Your task to perform on an android device: turn notification dots off Image 0: 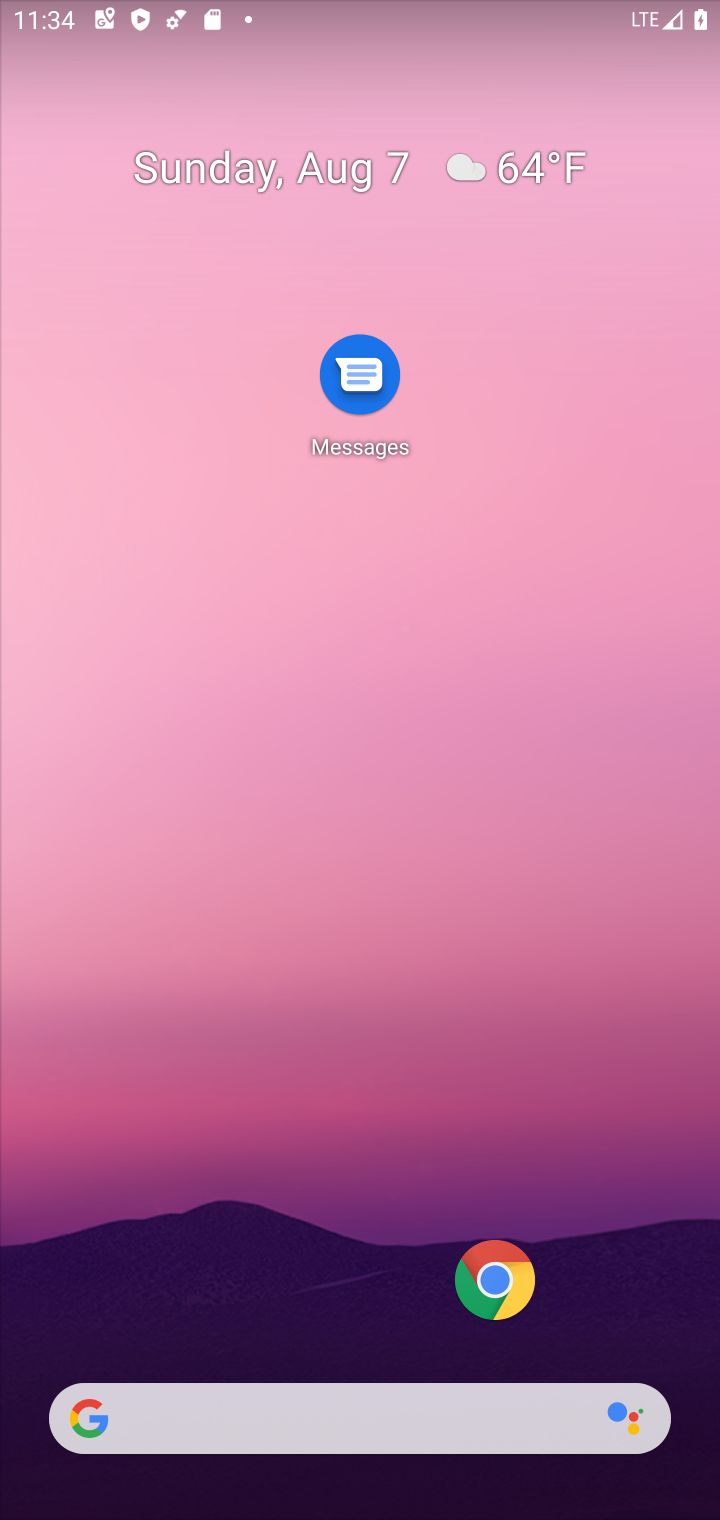
Step 0: drag from (246, 1284) to (413, 167)
Your task to perform on an android device: turn notification dots off Image 1: 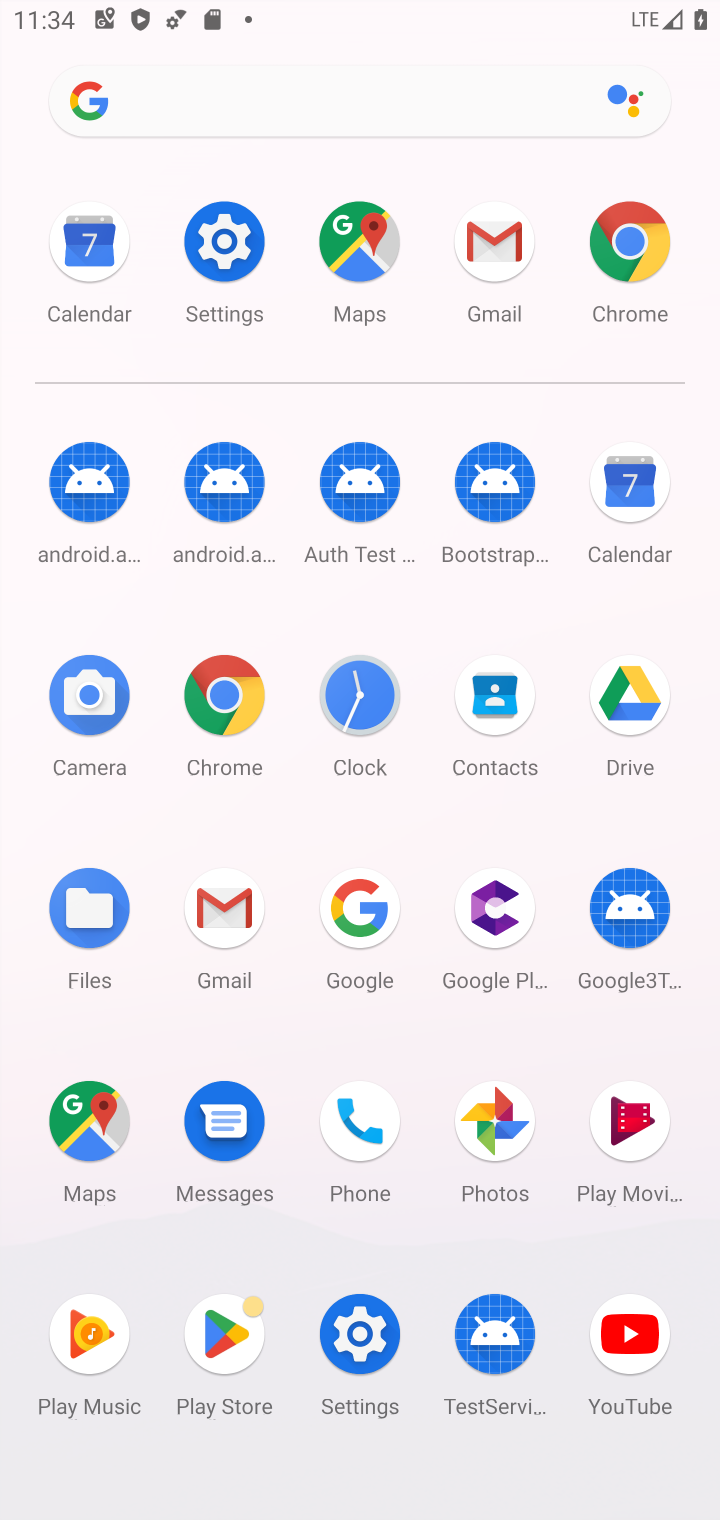
Step 1: click (235, 246)
Your task to perform on an android device: turn notification dots off Image 2: 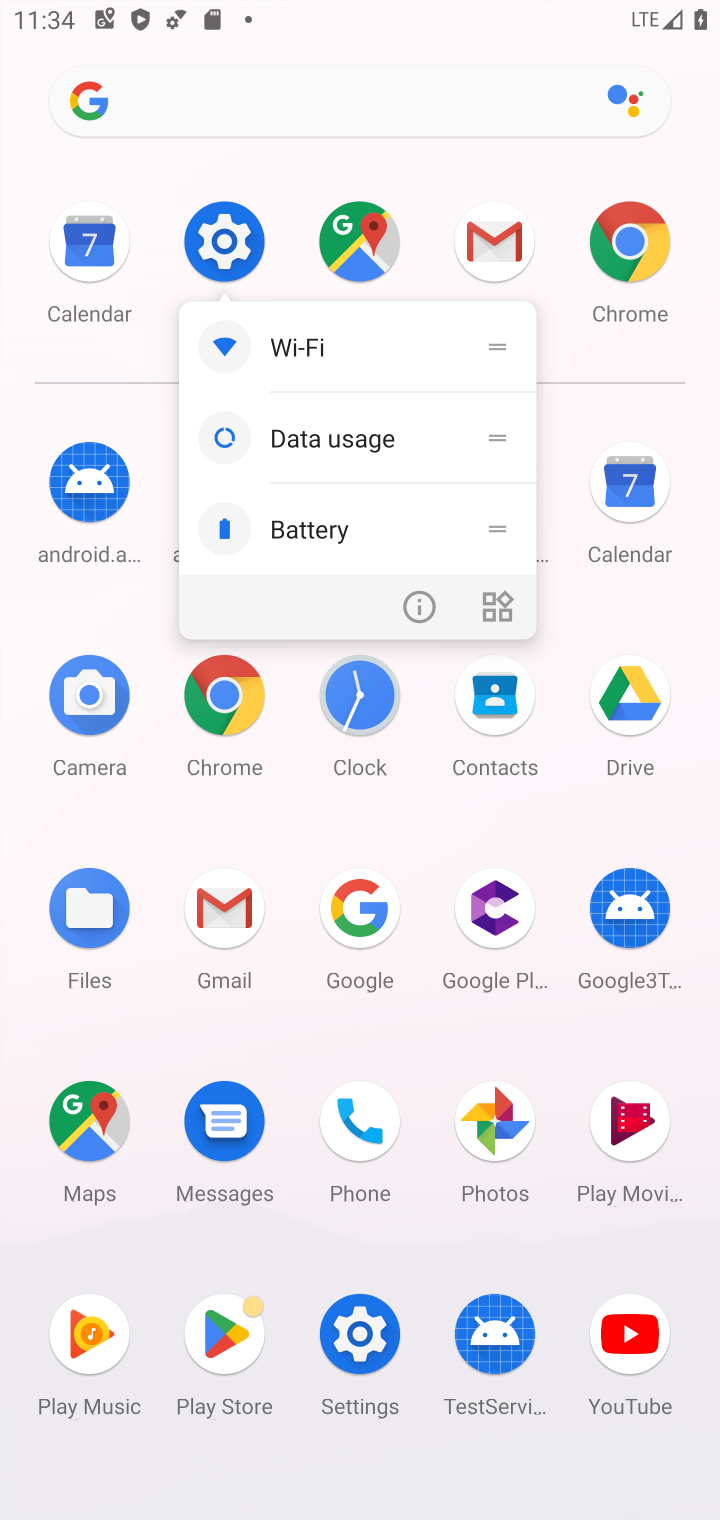
Step 2: click (226, 246)
Your task to perform on an android device: turn notification dots off Image 3: 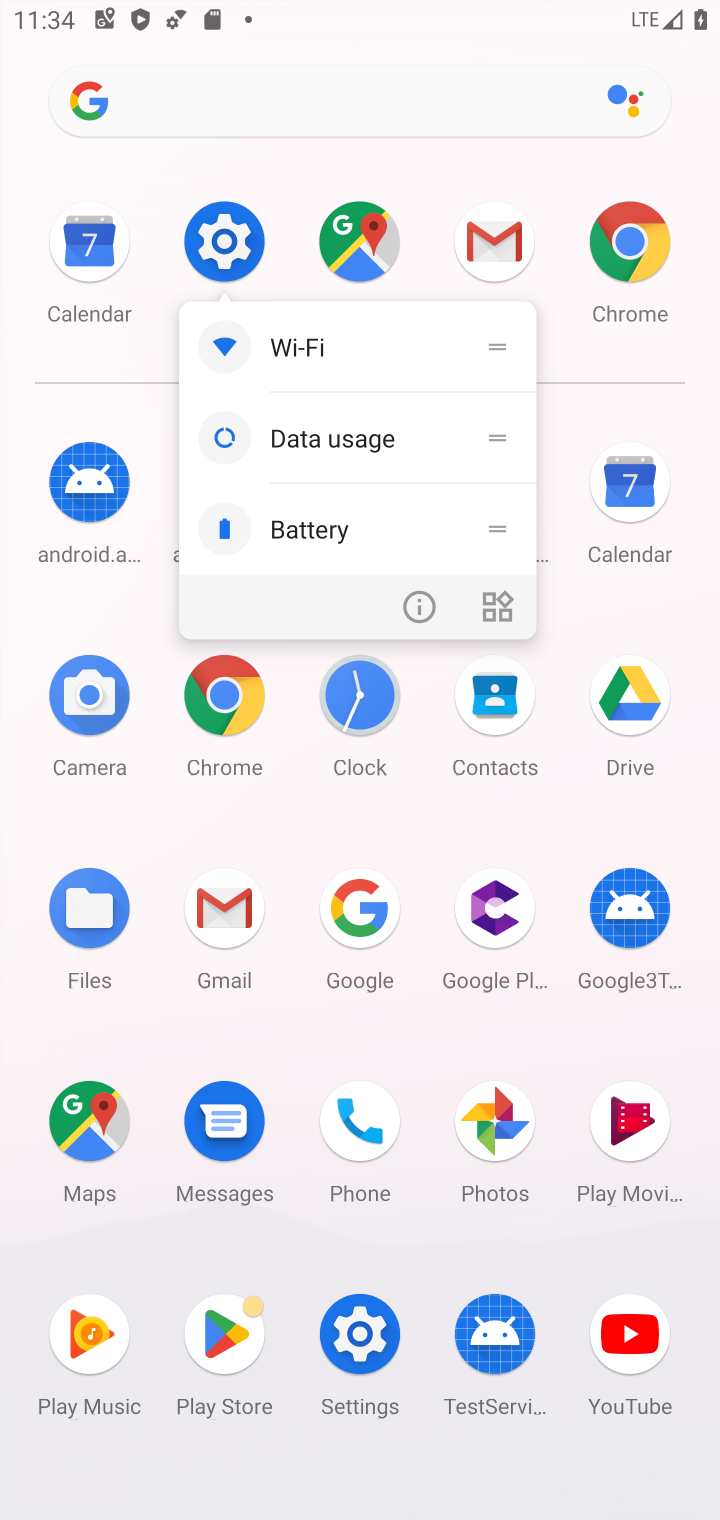
Step 3: click (224, 242)
Your task to perform on an android device: turn notification dots off Image 4: 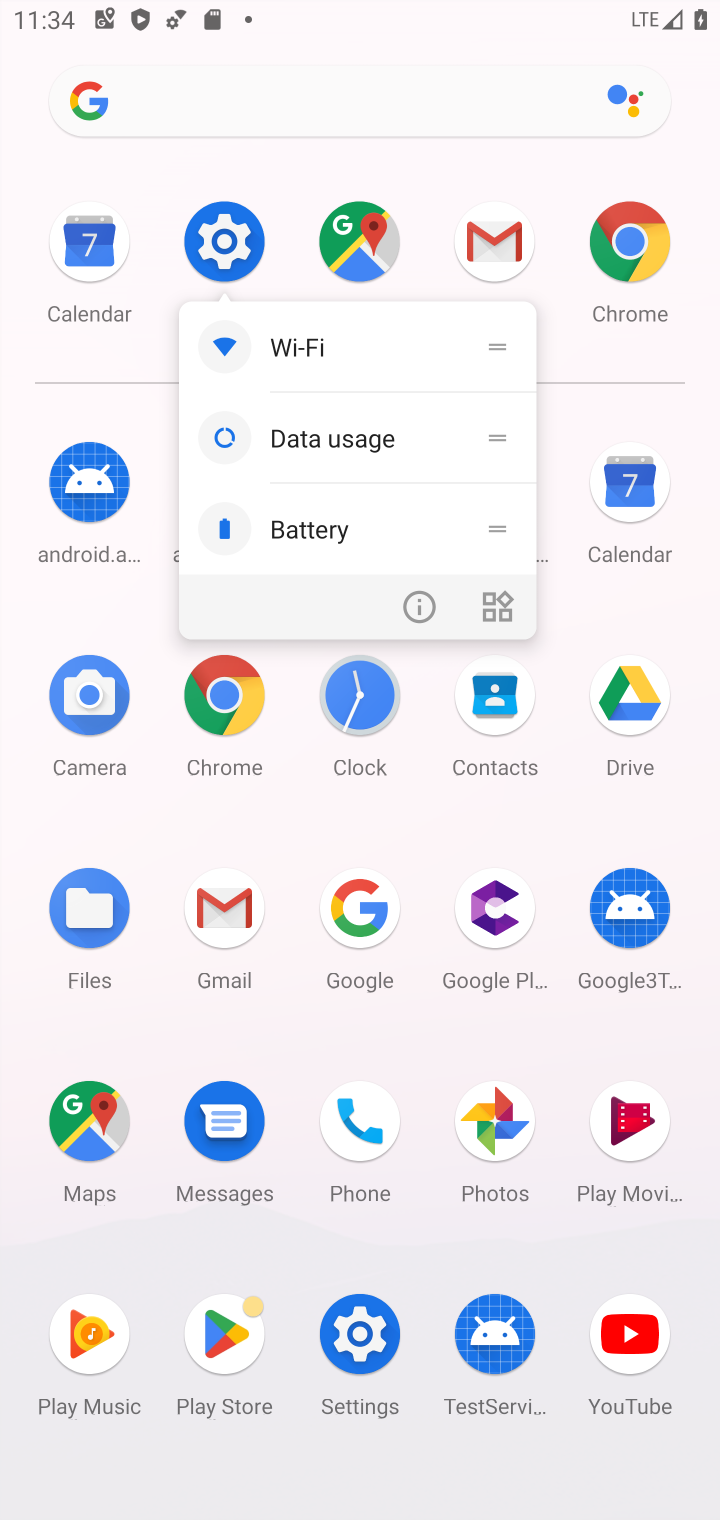
Step 4: click (226, 240)
Your task to perform on an android device: turn notification dots off Image 5: 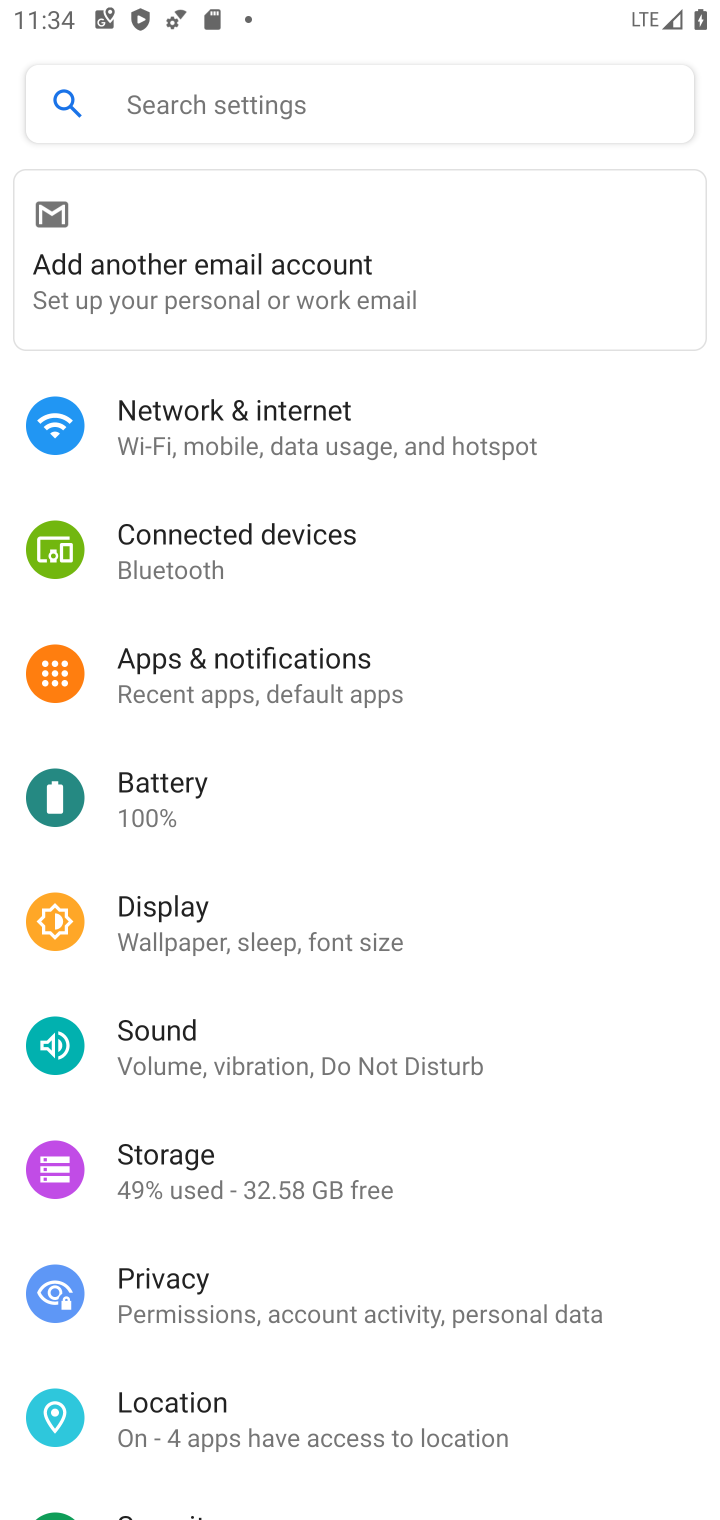
Step 5: click (342, 676)
Your task to perform on an android device: turn notification dots off Image 6: 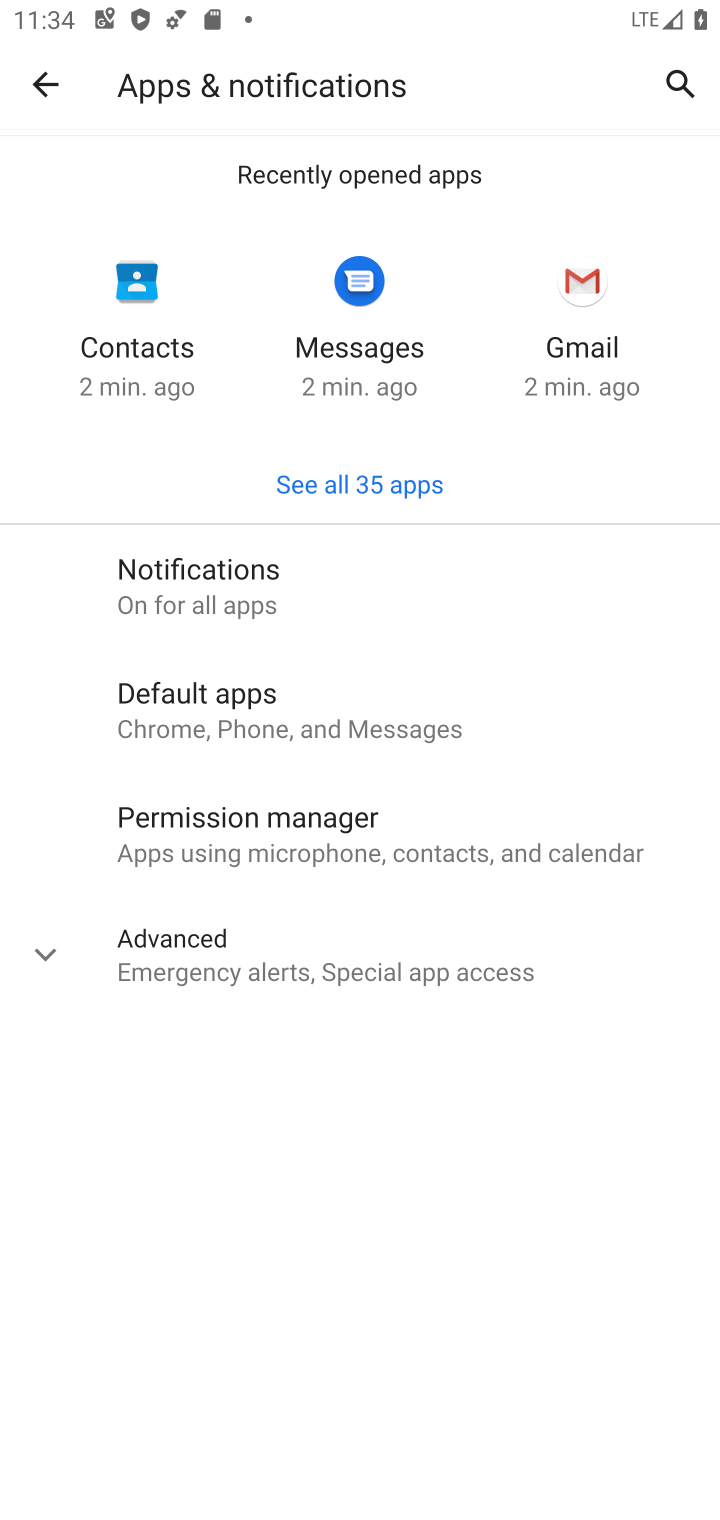
Step 6: click (276, 591)
Your task to perform on an android device: turn notification dots off Image 7: 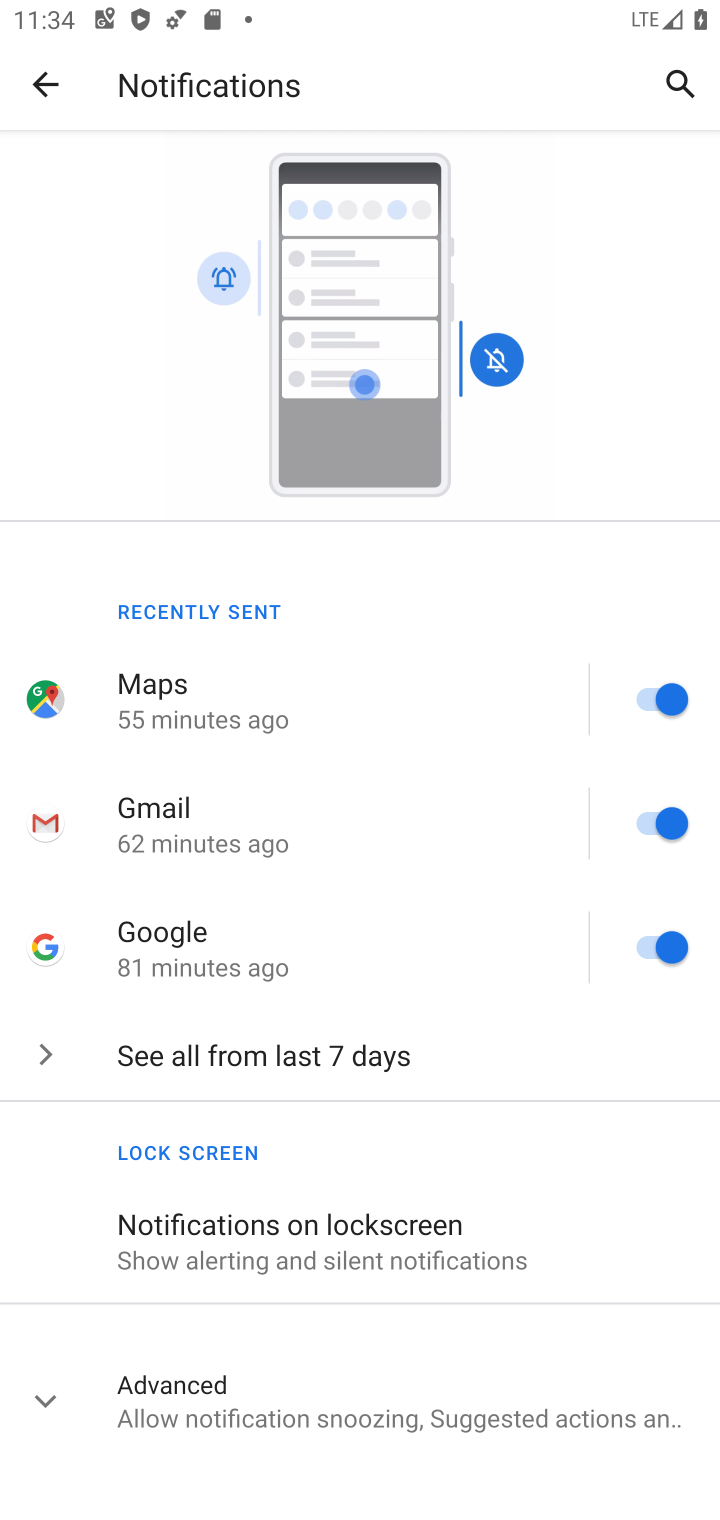
Step 7: click (278, 1378)
Your task to perform on an android device: turn notification dots off Image 8: 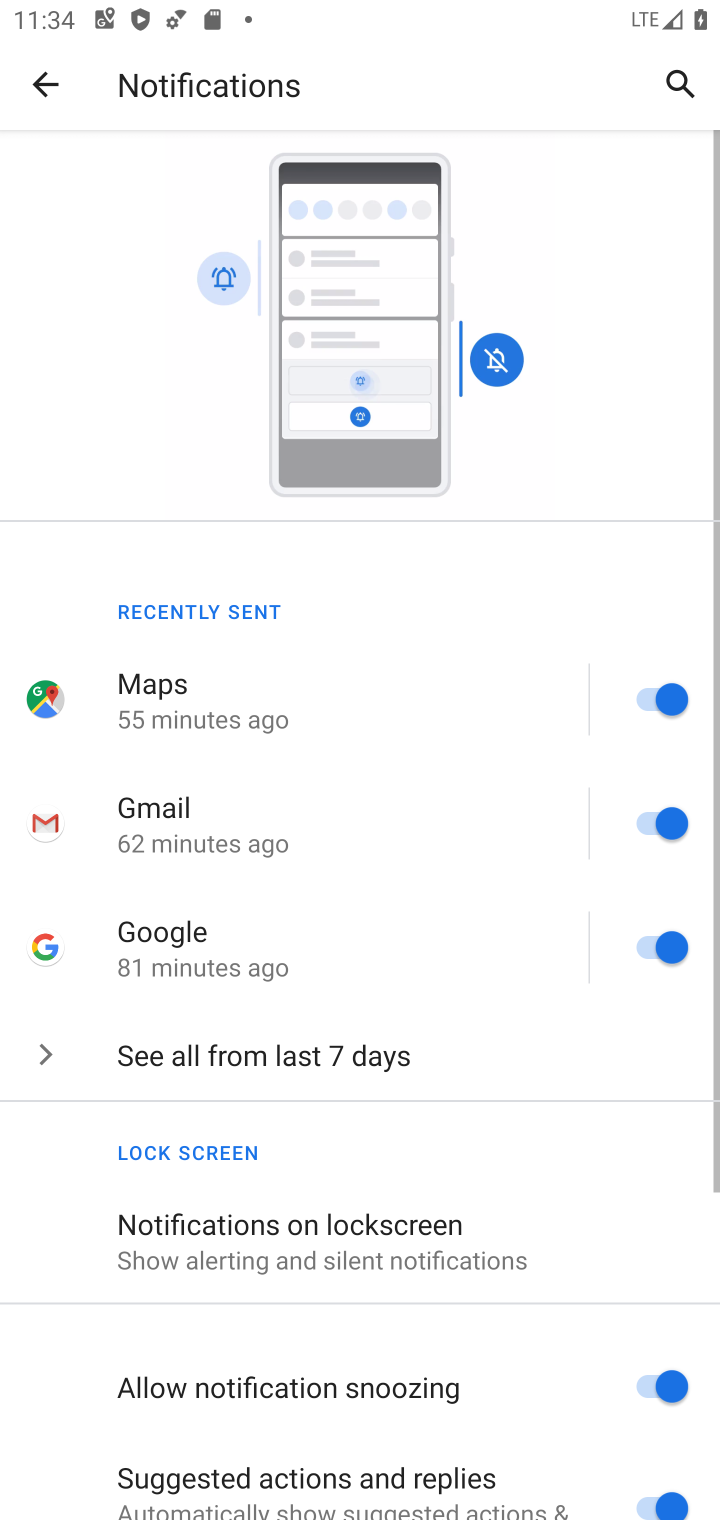
Step 8: drag from (290, 1352) to (412, 1148)
Your task to perform on an android device: turn notification dots off Image 9: 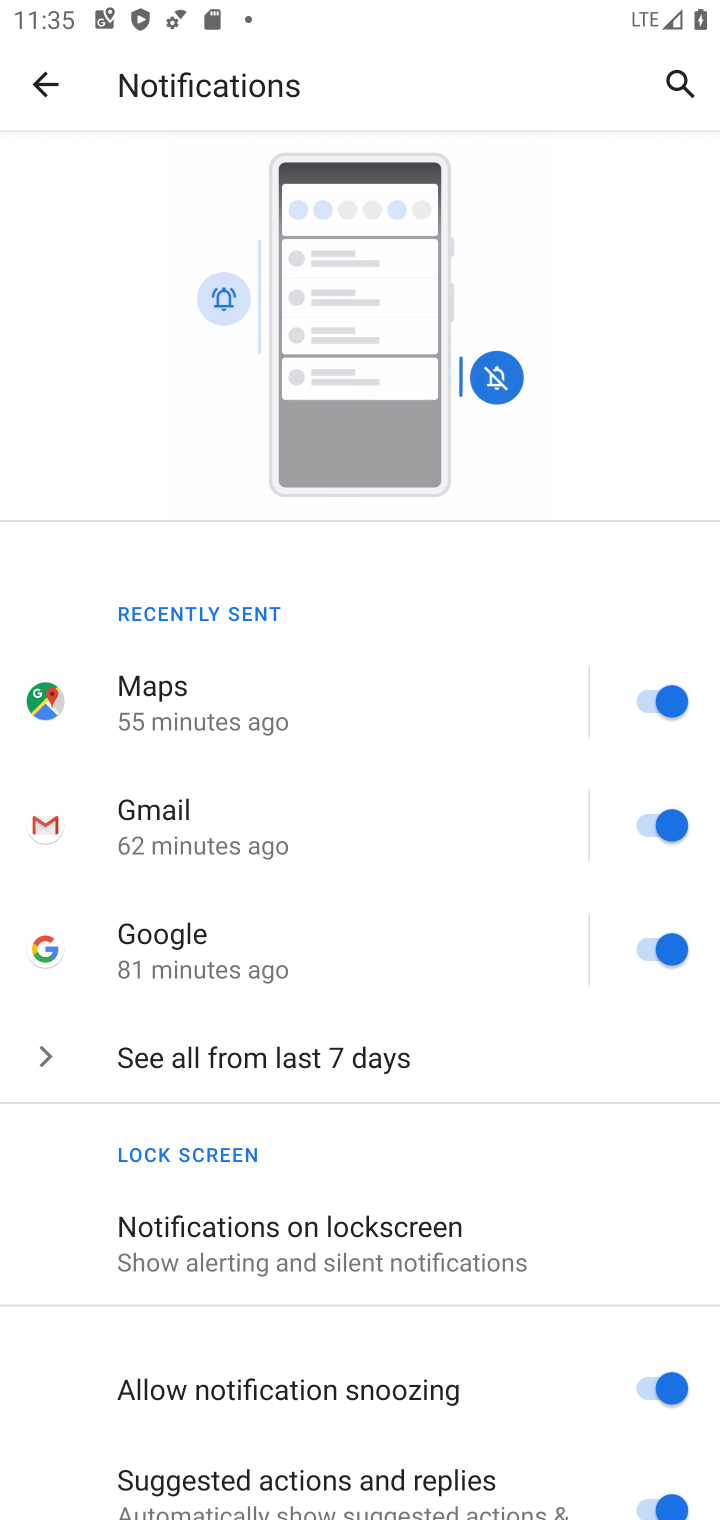
Step 9: drag from (409, 815) to (429, 1506)
Your task to perform on an android device: turn notification dots off Image 10: 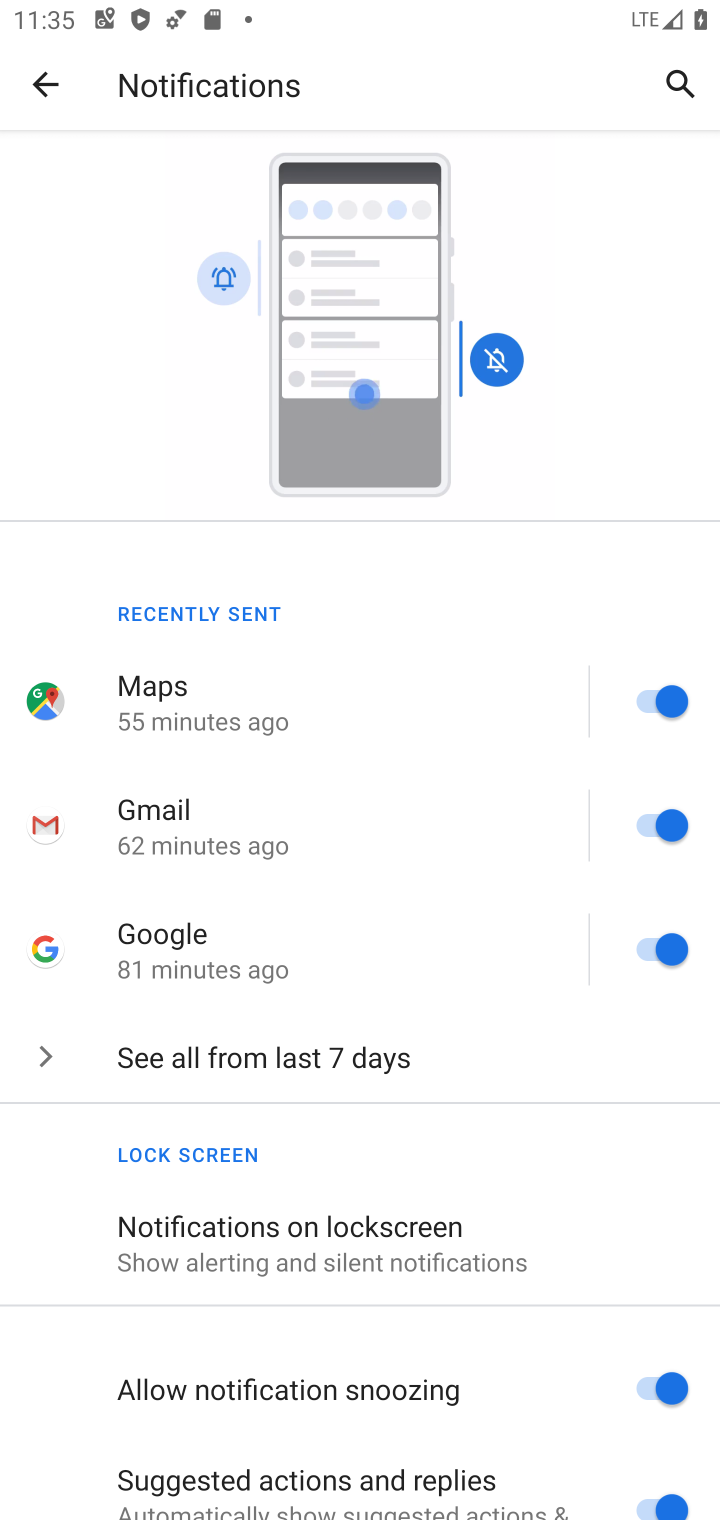
Step 10: drag from (415, 1276) to (512, 447)
Your task to perform on an android device: turn notification dots off Image 11: 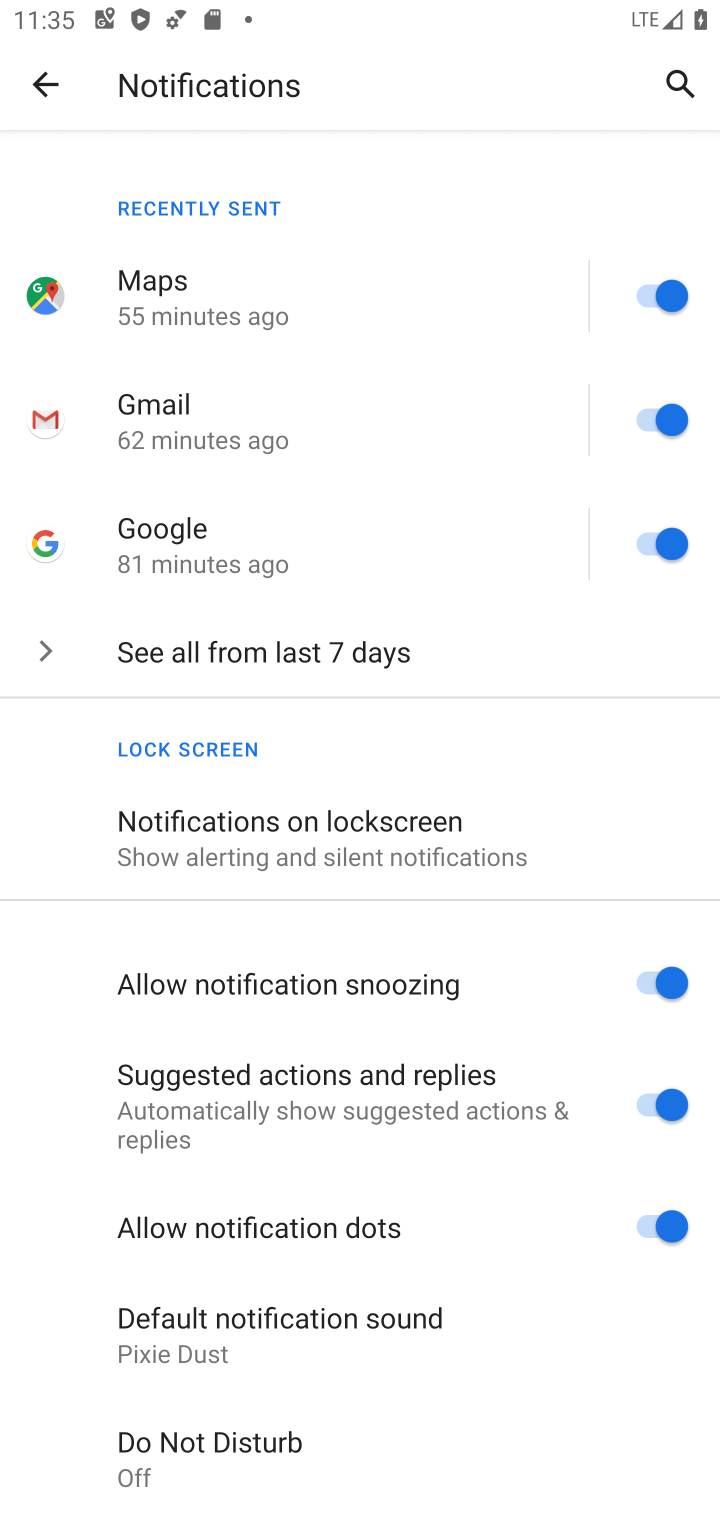
Step 11: click (683, 1296)
Your task to perform on an android device: turn notification dots off Image 12: 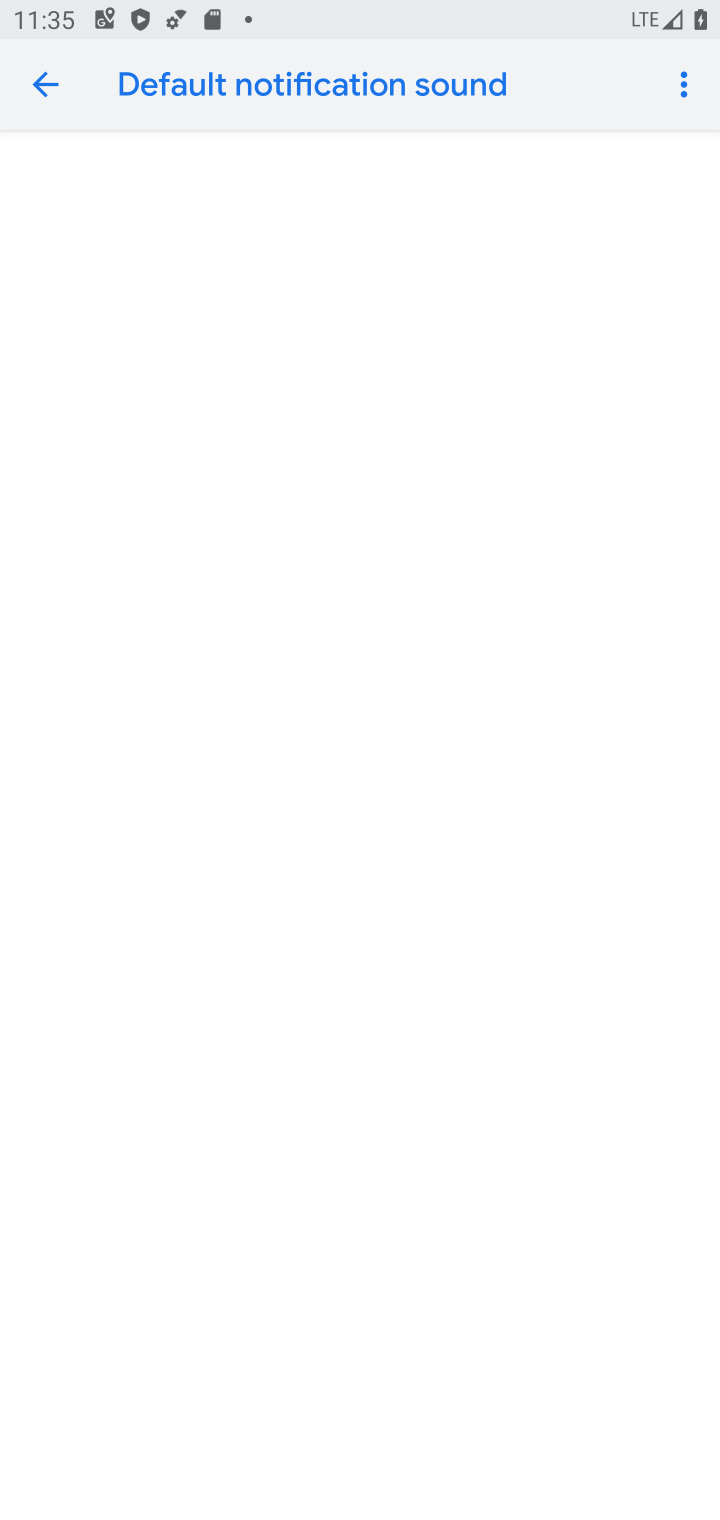
Step 12: task complete